Your task to perform on an android device: Show me recent news Image 0: 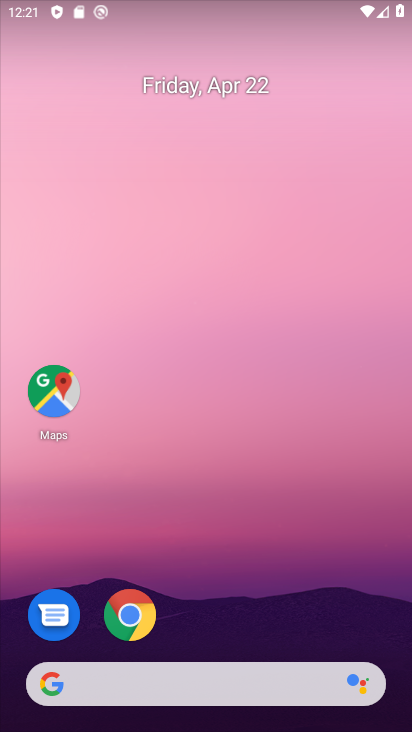
Step 0: drag from (216, 651) to (185, 168)
Your task to perform on an android device: Show me recent news Image 1: 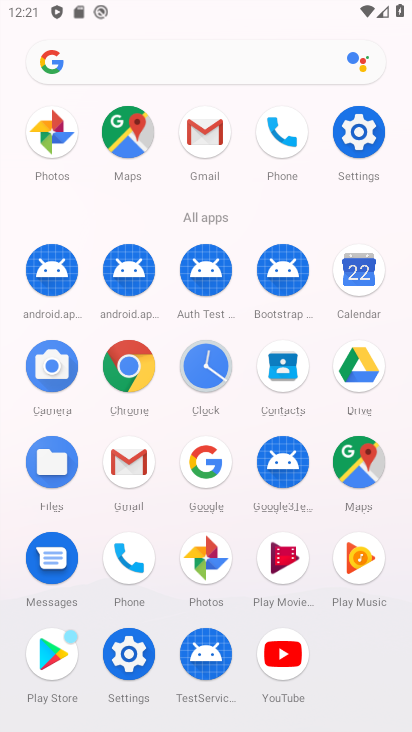
Step 1: click (184, 60)
Your task to perform on an android device: Show me recent news Image 2: 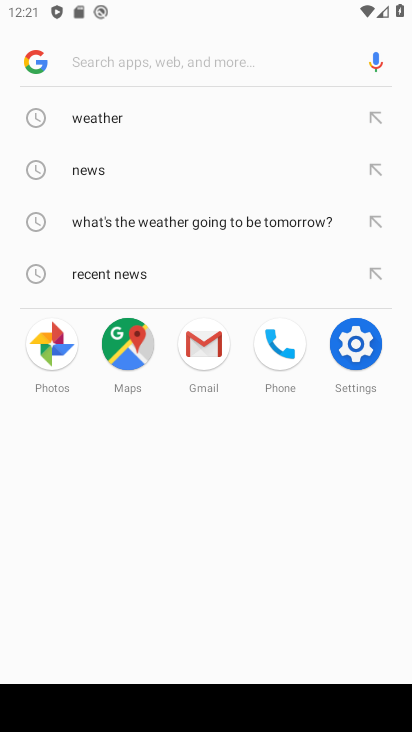
Step 2: click (100, 171)
Your task to perform on an android device: Show me recent news Image 3: 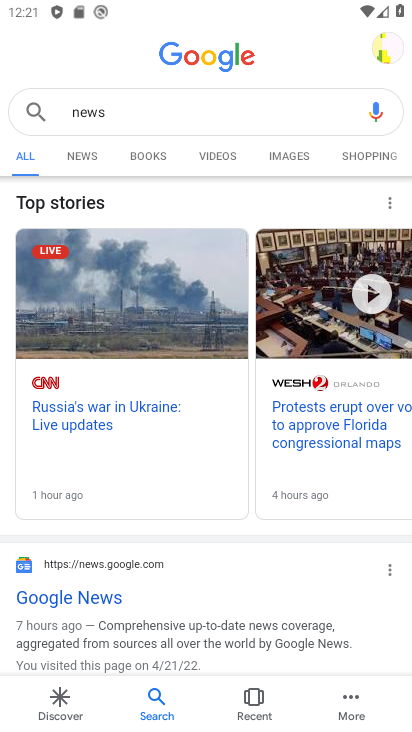
Step 3: task complete